Your task to perform on an android device: Open calendar and show me the first week of next month Image 0: 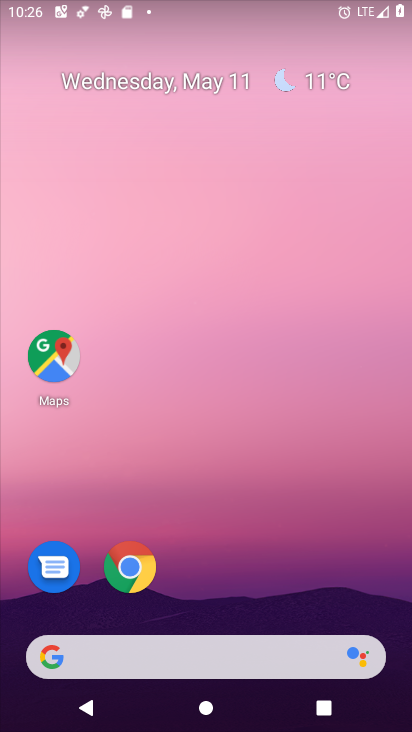
Step 0: click (176, 76)
Your task to perform on an android device: Open calendar and show me the first week of next month Image 1: 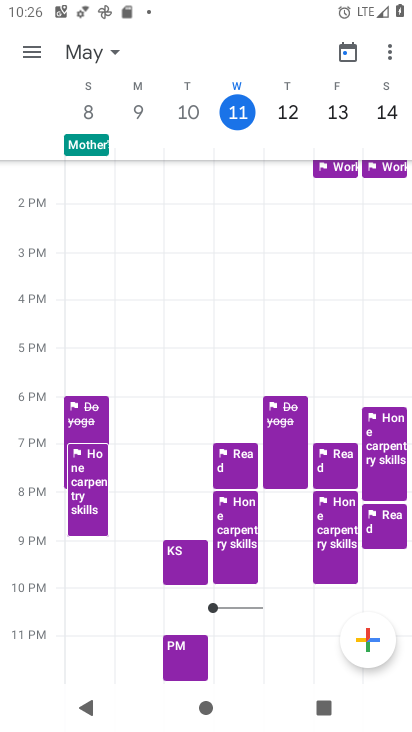
Step 1: click (113, 49)
Your task to perform on an android device: Open calendar and show me the first week of next month Image 2: 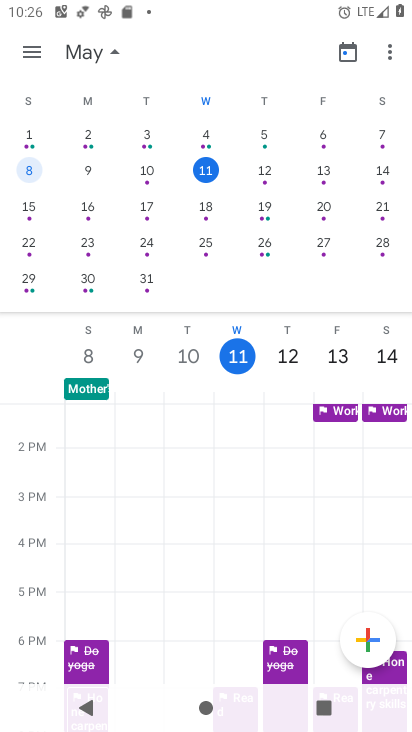
Step 2: task complete